Your task to perform on an android device: set the stopwatch Image 0: 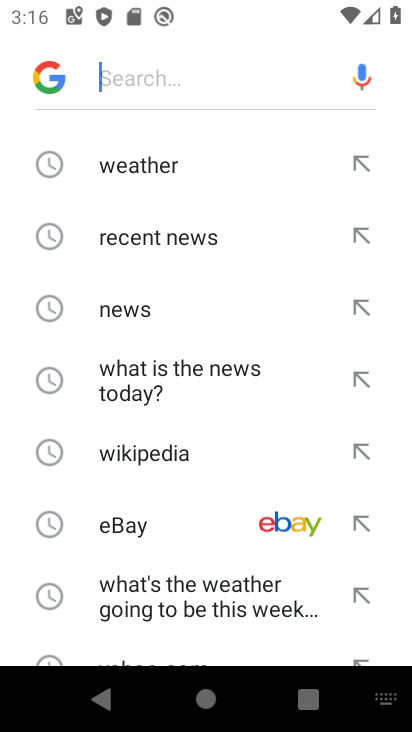
Step 0: press back button
Your task to perform on an android device: set the stopwatch Image 1: 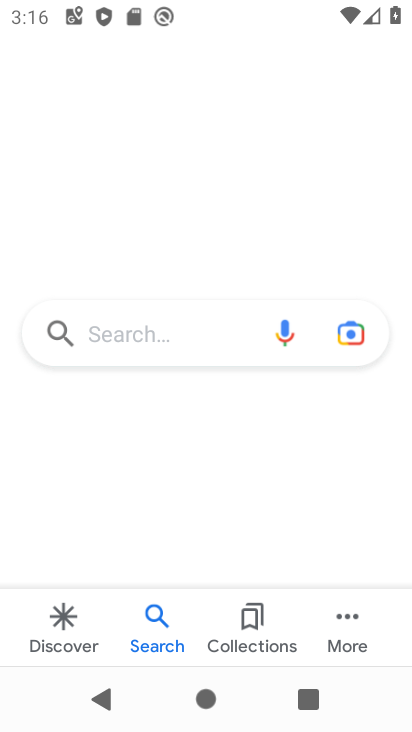
Step 1: press home button
Your task to perform on an android device: set the stopwatch Image 2: 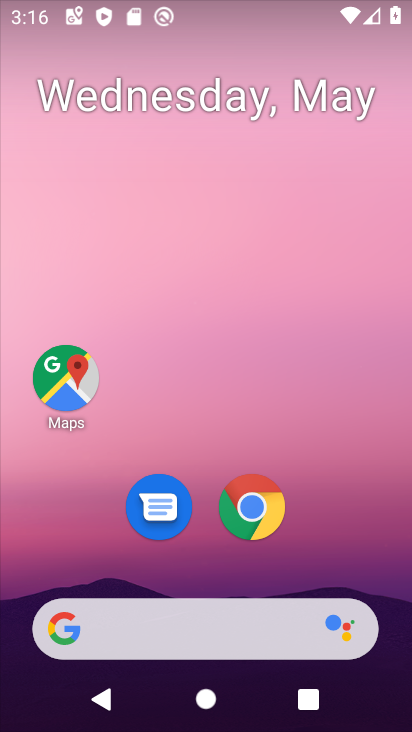
Step 2: drag from (213, 561) to (259, 81)
Your task to perform on an android device: set the stopwatch Image 3: 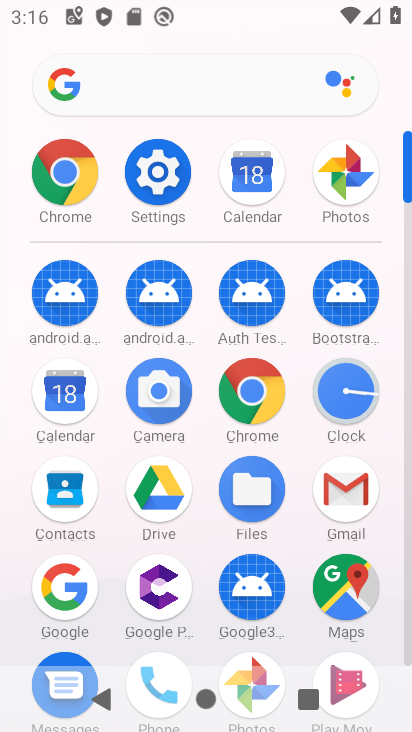
Step 3: click (346, 398)
Your task to perform on an android device: set the stopwatch Image 4: 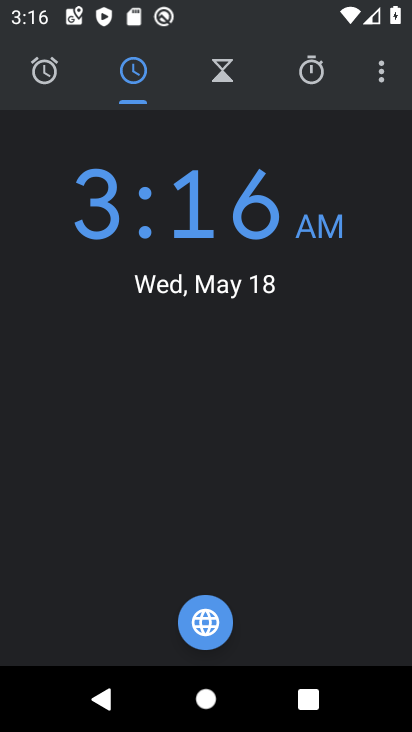
Step 4: click (306, 74)
Your task to perform on an android device: set the stopwatch Image 5: 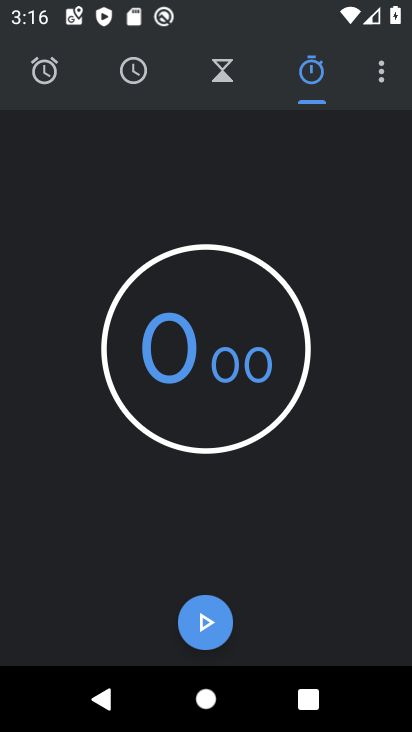
Step 5: task complete